Your task to perform on an android device: toggle wifi Image 0: 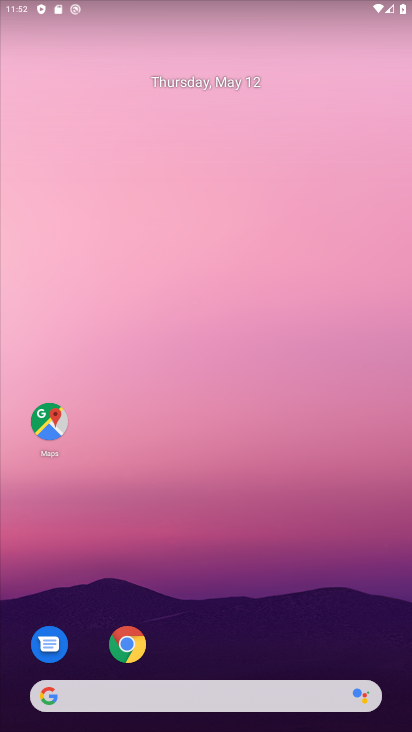
Step 0: drag from (223, 8) to (283, 484)
Your task to perform on an android device: toggle wifi Image 1: 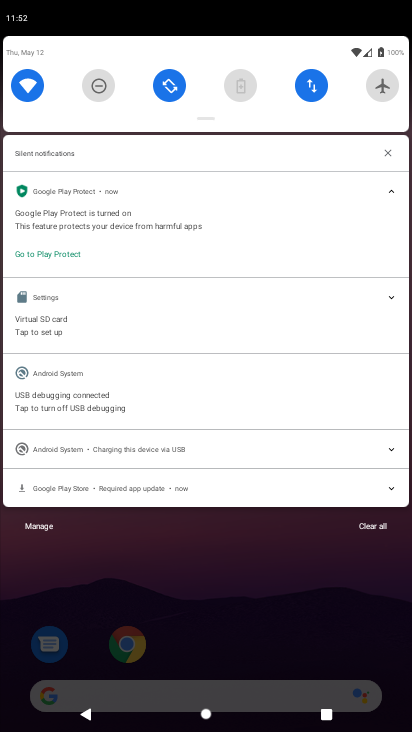
Step 1: click (26, 93)
Your task to perform on an android device: toggle wifi Image 2: 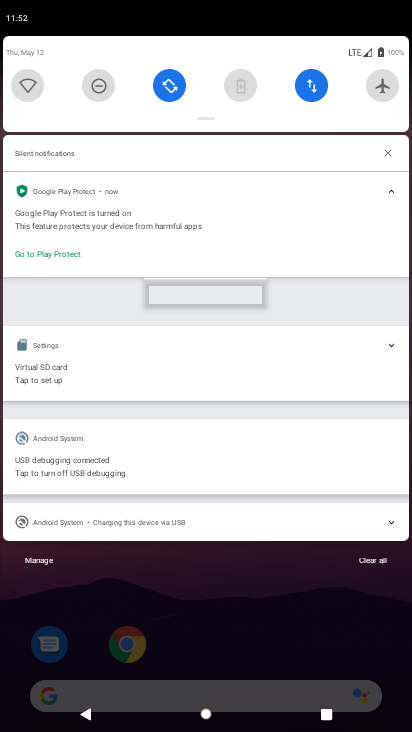
Step 2: task complete